Your task to perform on an android device: empty trash in google photos Image 0: 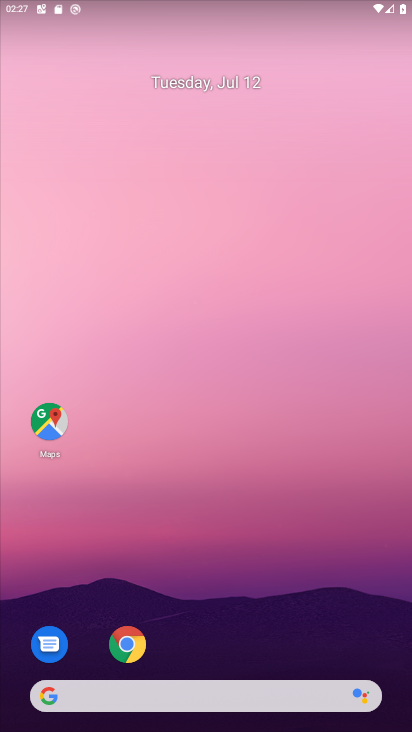
Step 0: click (187, 114)
Your task to perform on an android device: empty trash in google photos Image 1: 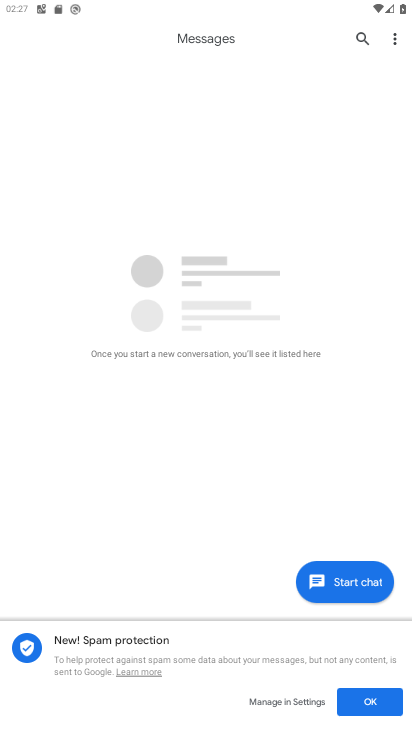
Step 1: press home button
Your task to perform on an android device: empty trash in google photos Image 2: 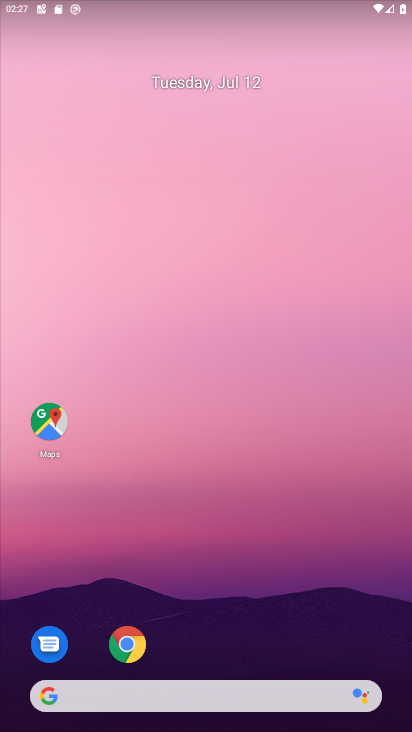
Step 2: drag from (197, 675) to (218, 0)
Your task to perform on an android device: empty trash in google photos Image 3: 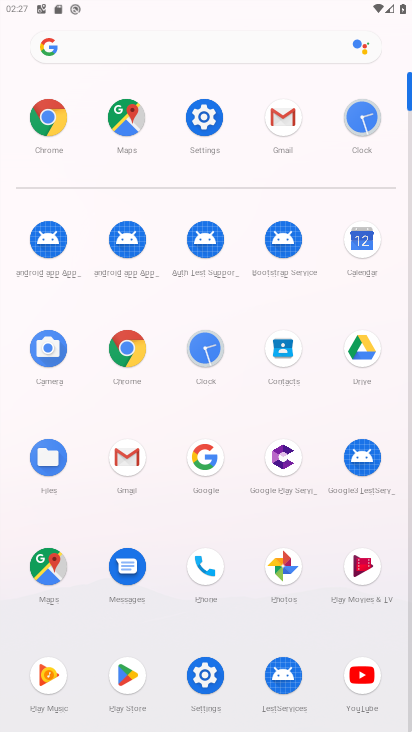
Step 3: click (287, 570)
Your task to perform on an android device: empty trash in google photos Image 4: 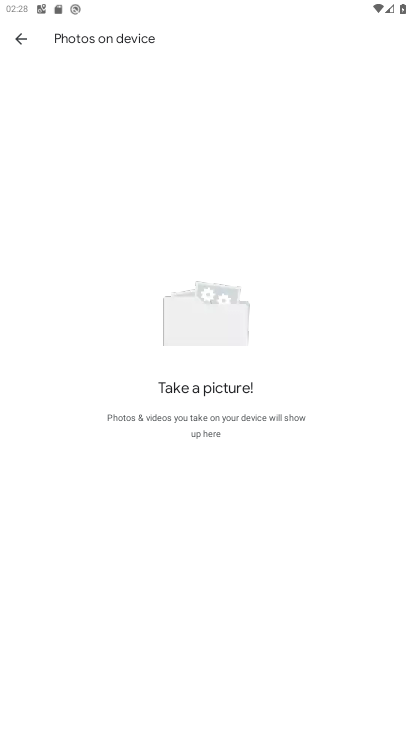
Step 4: click (25, 47)
Your task to perform on an android device: empty trash in google photos Image 5: 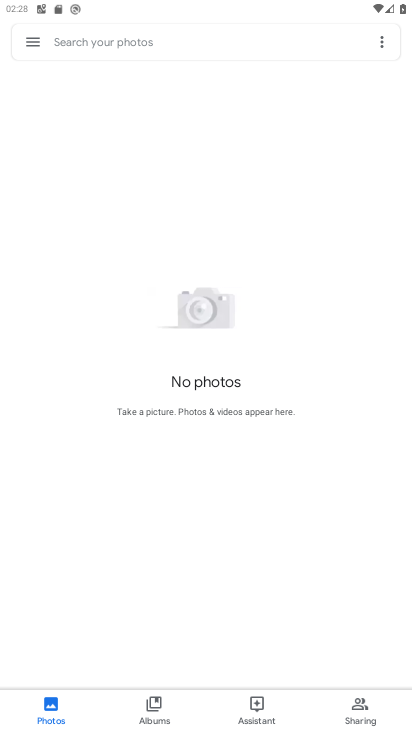
Step 5: click (25, 47)
Your task to perform on an android device: empty trash in google photos Image 6: 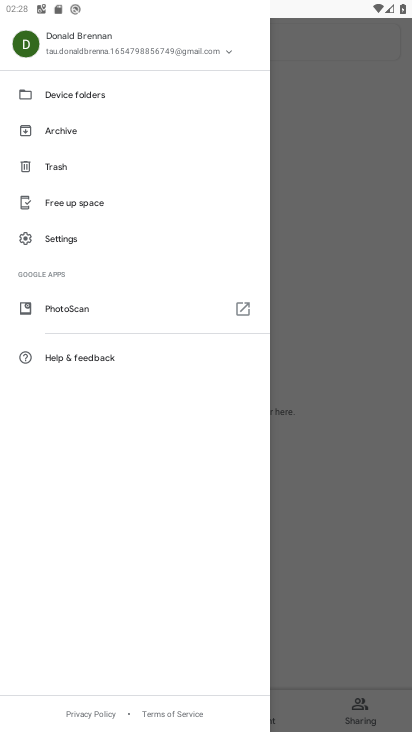
Step 6: click (60, 164)
Your task to perform on an android device: empty trash in google photos Image 7: 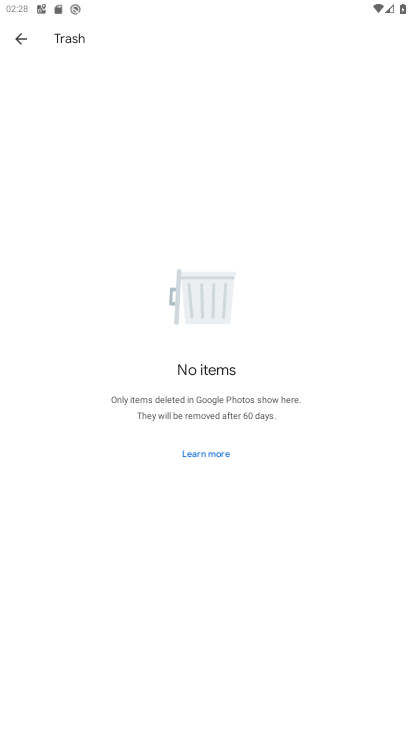
Step 7: task complete